Your task to perform on an android device: Go to wifi settings Image 0: 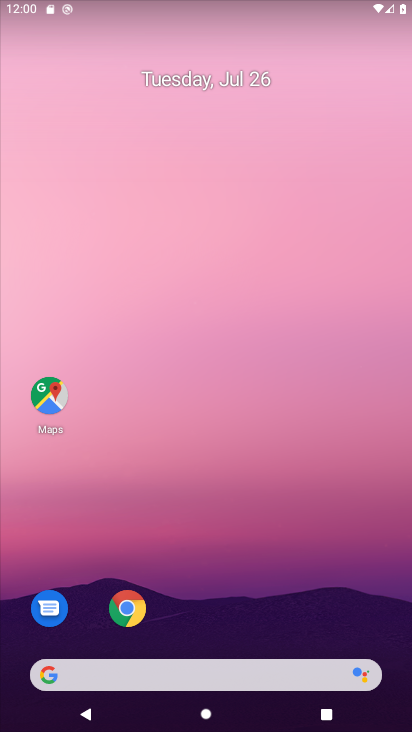
Step 0: drag from (207, 544) to (285, 5)
Your task to perform on an android device: Go to wifi settings Image 1: 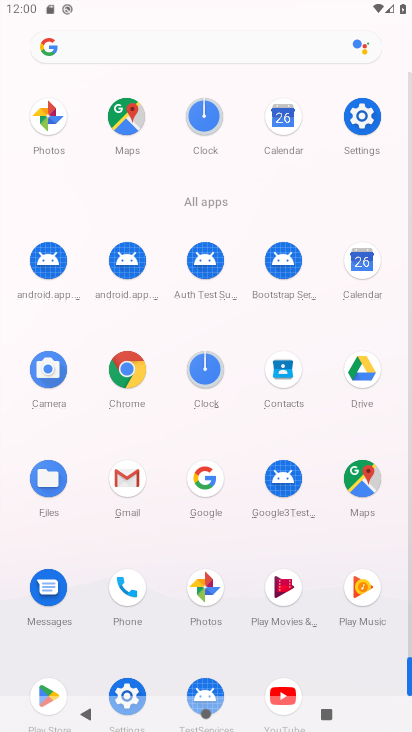
Step 1: click (123, 682)
Your task to perform on an android device: Go to wifi settings Image 2: 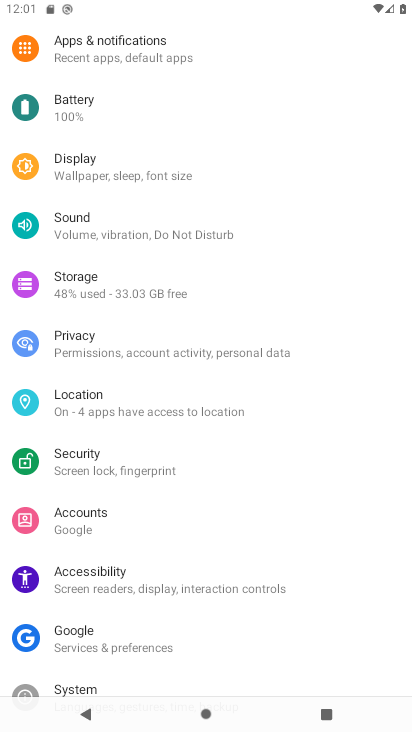
Step 2: drag from (199, 211) to (197, 691)
Your task to perform on an android device: Go to wifi settings Image 3: 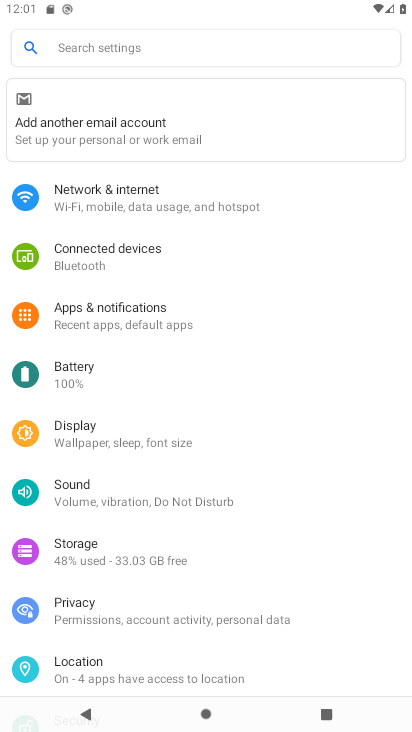
Step 3: drag from (180, 332) to (189, 556)
Your task to perform on an android device: Go to wifi settings Image 4: 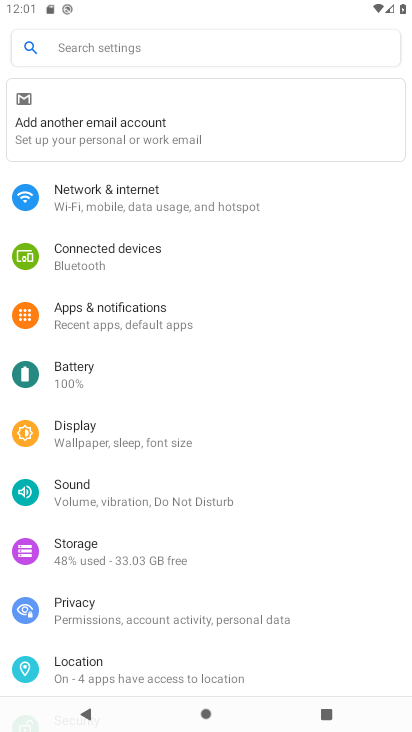
Step 4: click (167, 196)
Your task to perform on an android device: Go to wifi settings Image 5: 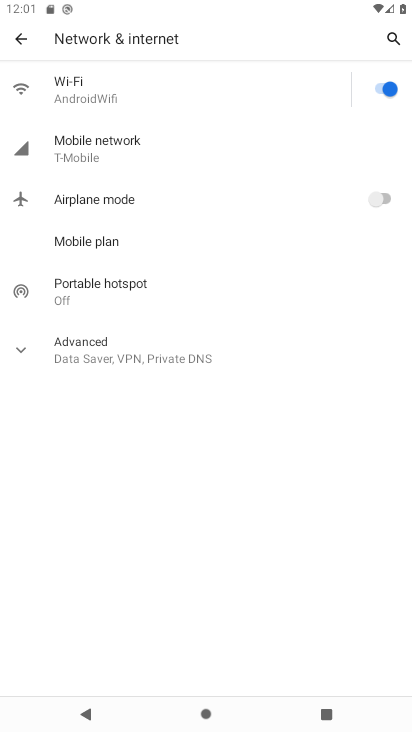
Step 5: click (113, 102)
Your task to perform on an android device: Go to wifi settings Image 6: 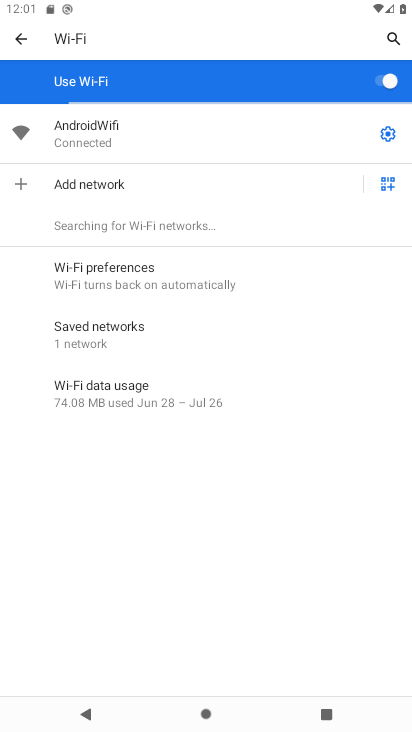
Step 6: task complete